Your task to perform on an android device: turn on data saver in the chrome app Image 0: 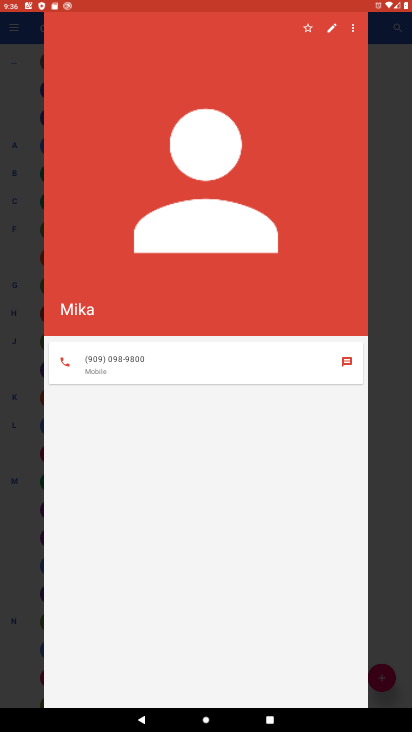
Step 0: press home button
Your task to perform on an android device: turn on data saver in the chrome app Image 1: 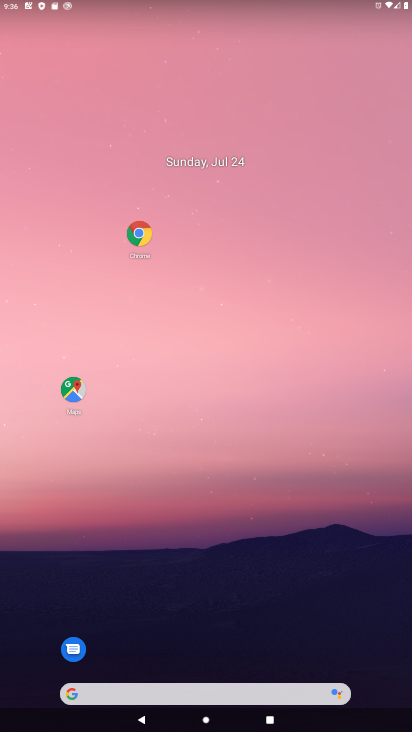
Step 1: click (137, 234)
Your task to perform on an android device: turn on data saver in the chrome app Image 2: 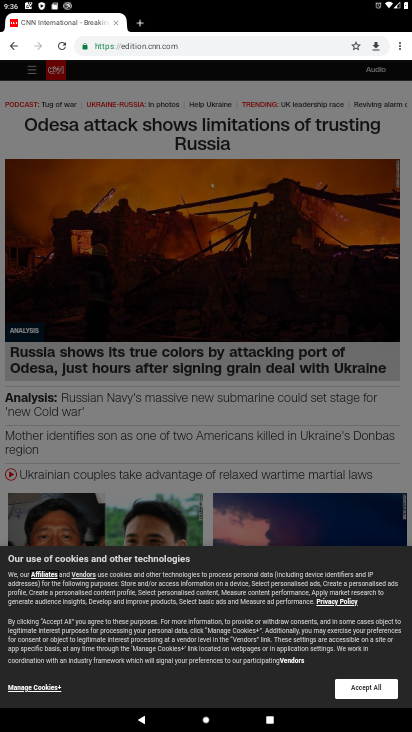
Step 2: click (398, 50)
Your task to perform on an android device: turn on data saver in the chrome app Image 3: 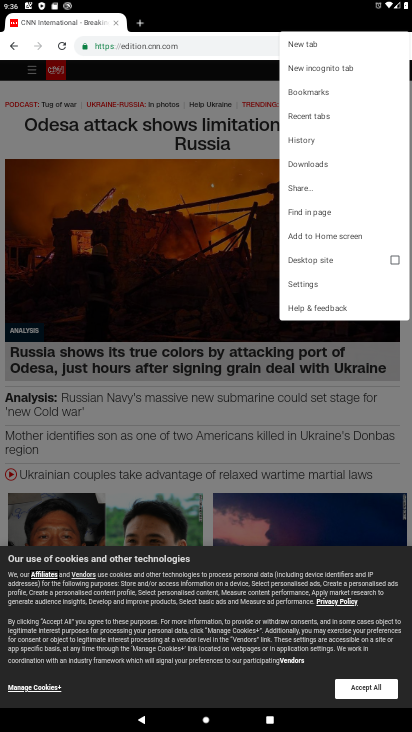
Step 3: click (305, 289)
Your task to perform on an android device: turn on data saver in the chrome app Image 4: 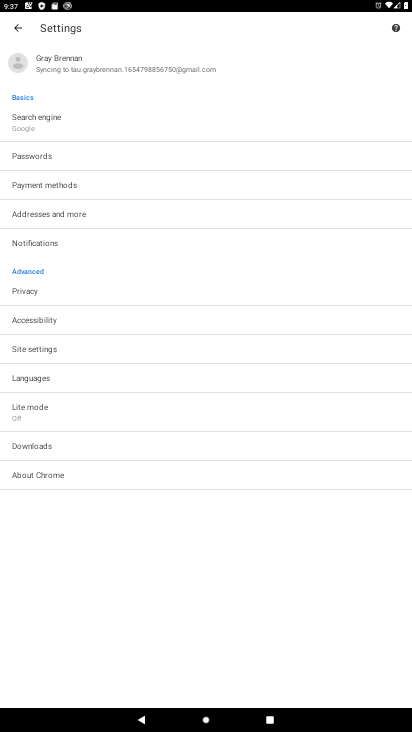
Step 4: click (42, 350)
Your task to perform on an android device: turn on data saver in the chrome app Image 5: 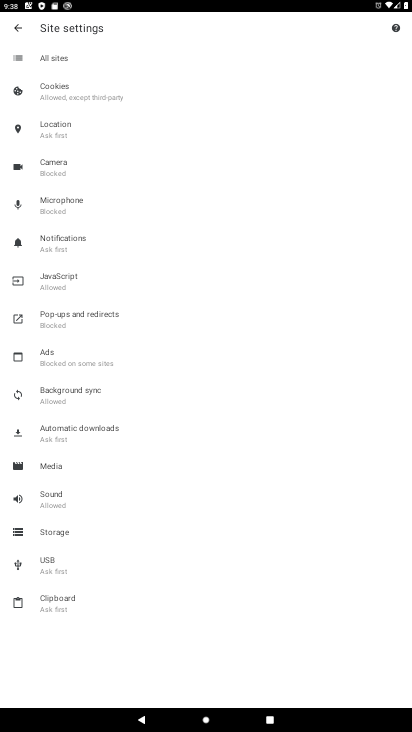
Step 5: press back button
Your task to perform on an android device: turn on data saver in the chrome app Image 6: 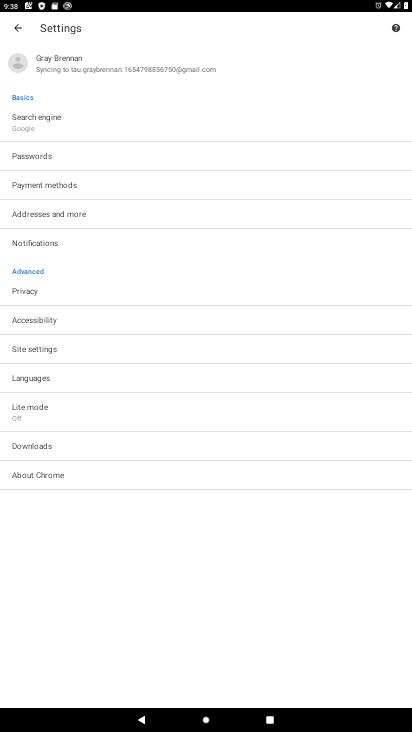
Step 6: click (37, 411)
Your task to perform on an android device: turn on data saver in the chrome app Image 7: 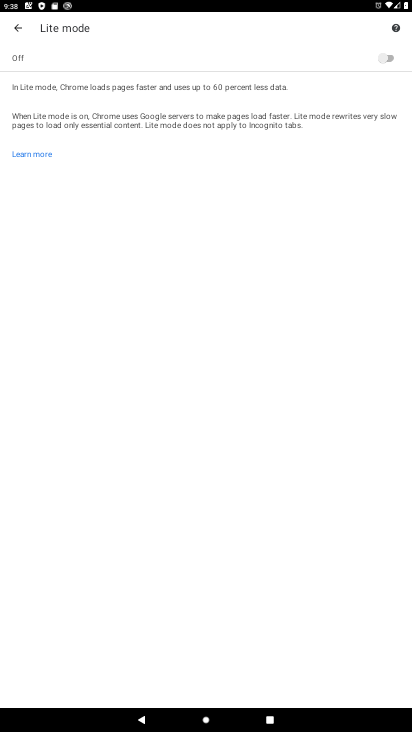
Step 7: click (395, 51)
Your task to perform on an android device: turn on data saver in the chrome app Image 8: 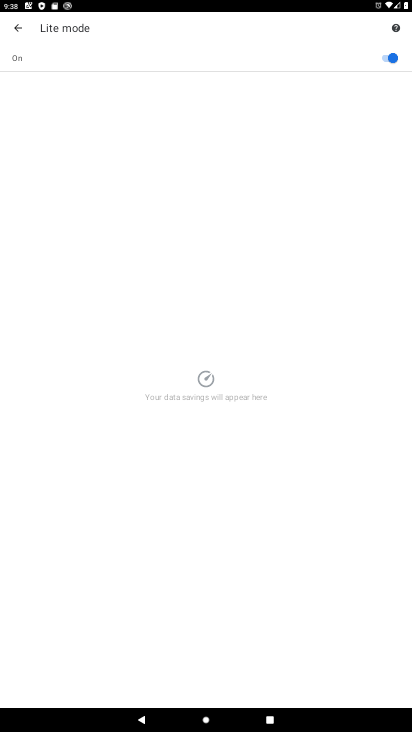
Step 8: task complete